Your task to perform on an android device: Turn off the flashlight Image 0: 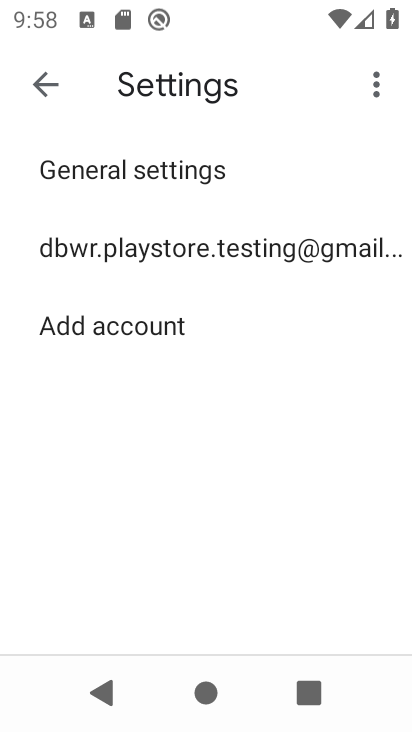
Step 0: press home button
Your task to perform on an android device: Turn off the flashlight Image 1: 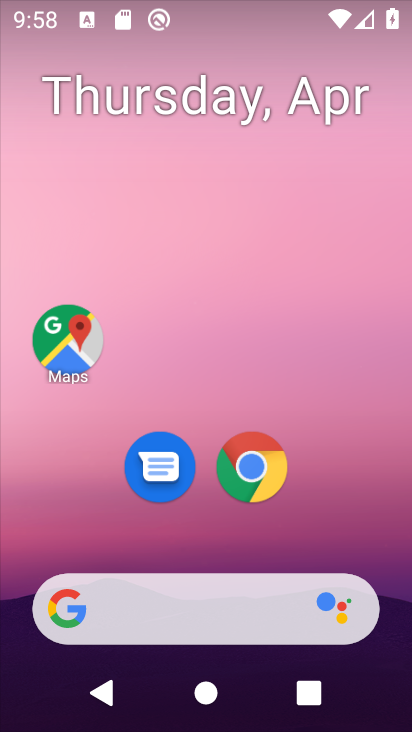
Step 1: drag from (323, 492) to (311, 119)
Your task to perform on an android device: Turn off the flashlight Image 2: 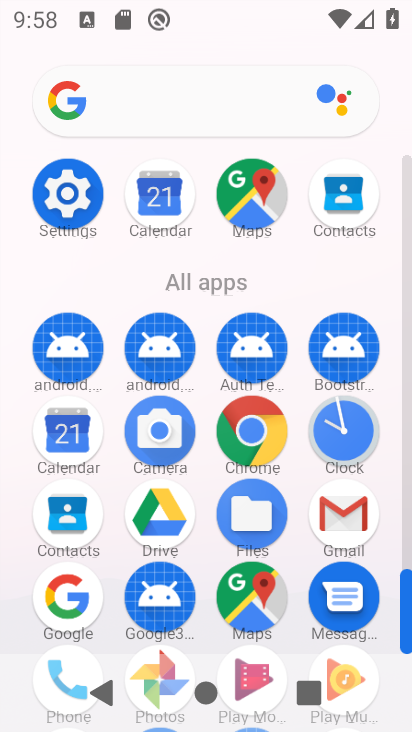
Step 2: click (76, 199)
Your task to perform on an android device: Turn off the flashlight Image 3: 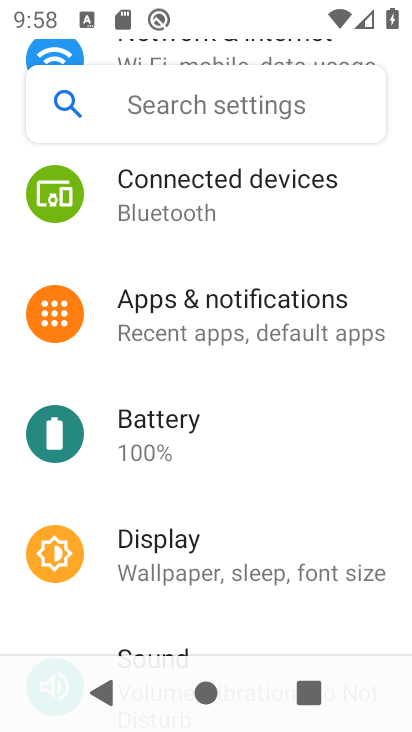
Step 3: click (201, 104)
Your task to perform on an android device: Turn off the flashlight Image 4: 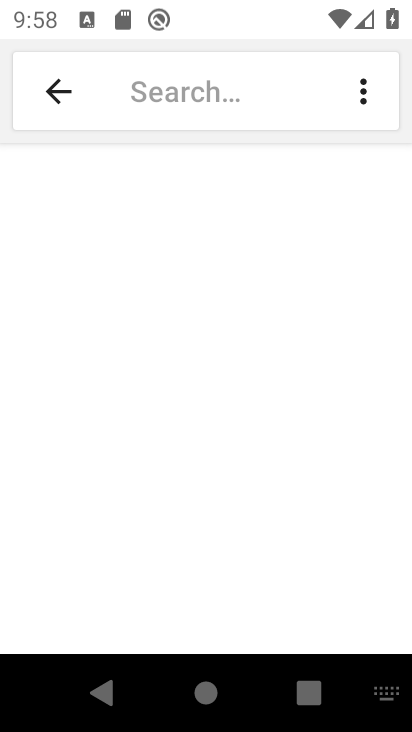
Step 4: type "flashlight"
Your task to perform on an android device: Turn off the flashlight Image 5: 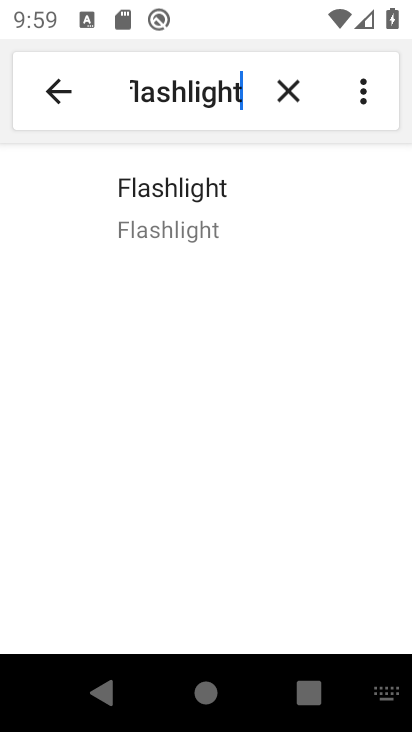
Step 5: task complete